Your task to perform on an android device: Go to battery settings Image 0: 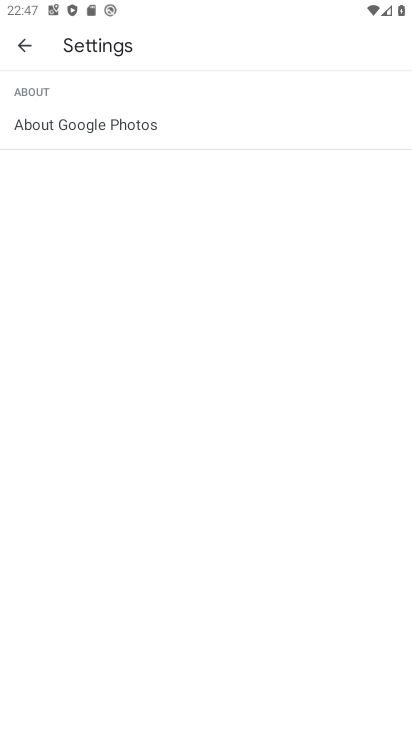
Step 0: press home button
Your task to perform on an android device: Go to battery settings Image 1: 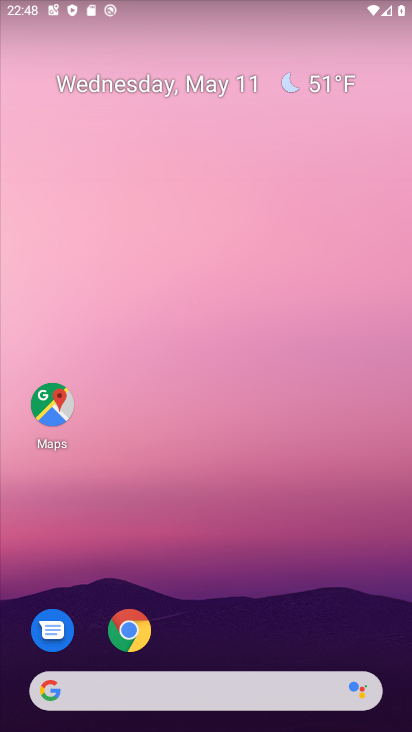
Step 1: drag from (207, 729) to (221, 166)
Your task to perform on an android device: Go to battery settings Image 2: 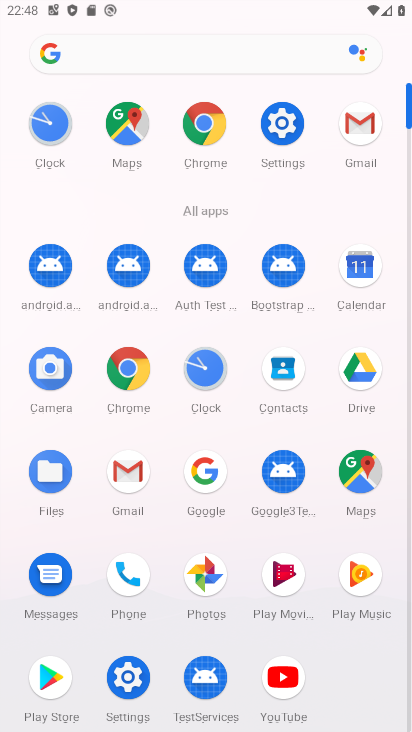
Step 2: click (283, 124)
Your task to perform on an android device: Go to battery settings Image 3: 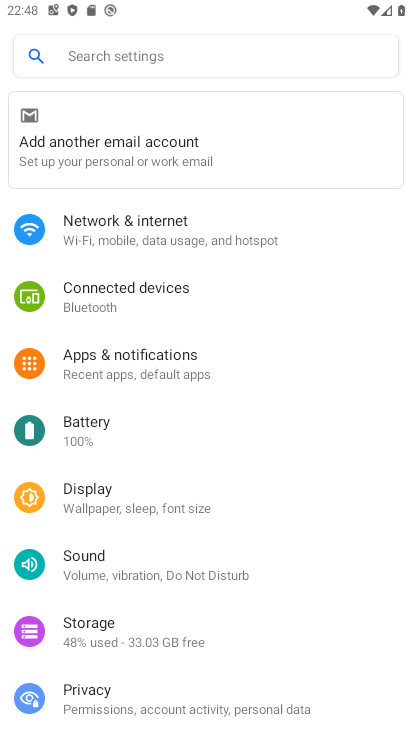
Step 3: drag from (172, 634) to (172, 402)
Your task to perform on an android device: Go to battery settings Image 4: 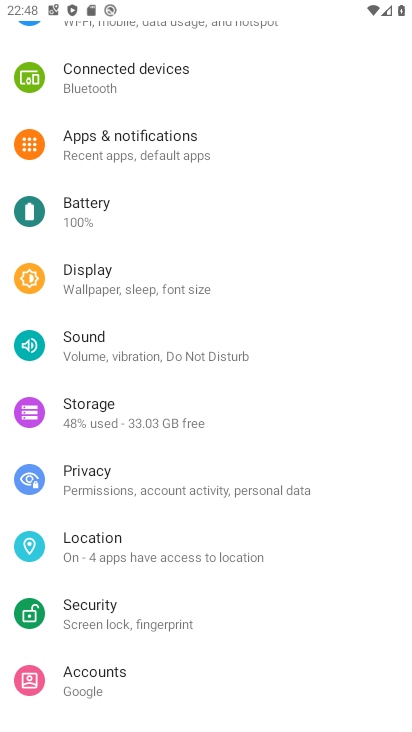
Step 4: click (77, 206)
Your task to perform on an android device: Go to battery settings Image 5: 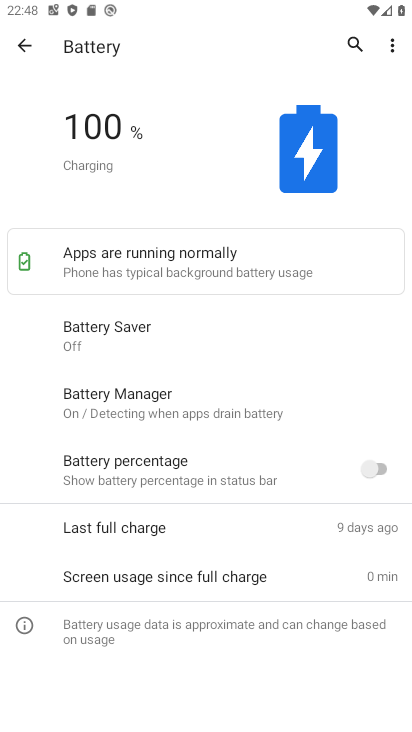
Step 5: task complete